Your task to perform on an android device: Open calendar and show me the second week of next month Image 0: 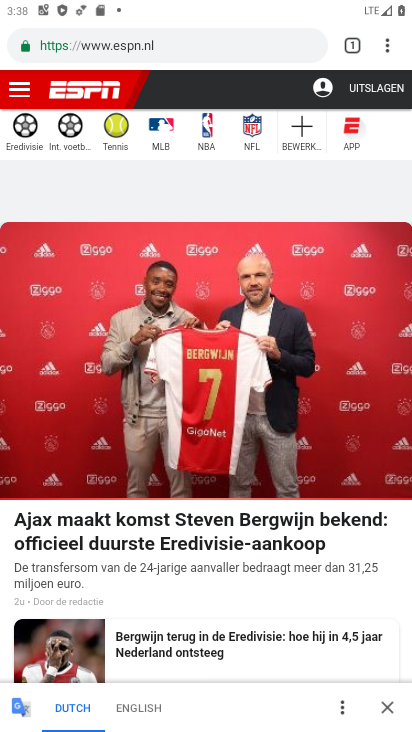
Step 0: press home button
Your task to perform on an android device: Open calendar and show me the second week of next month Image 1: 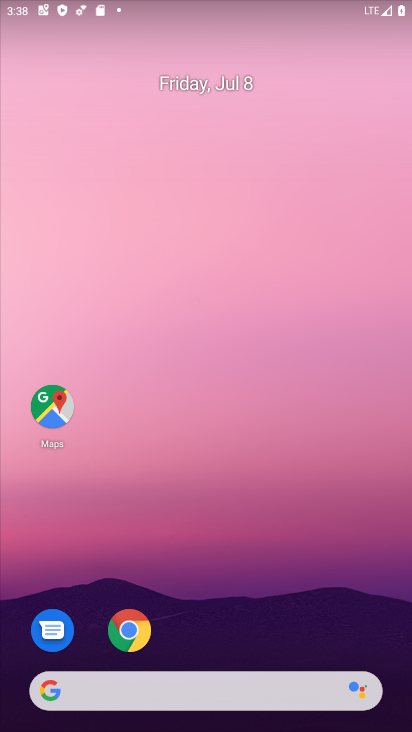
Step 1: drag from (214, 647) to (108, 71)
Your task to perform on an android device: Open calendar and show me the second week of next month Image 2: 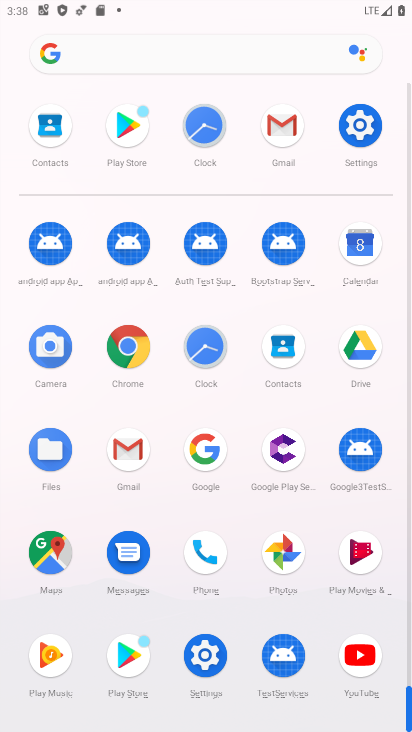
Step 2: click (362, 244)
Your task to perform on an android device: Open calendar and show me the second week of next month Image 3: 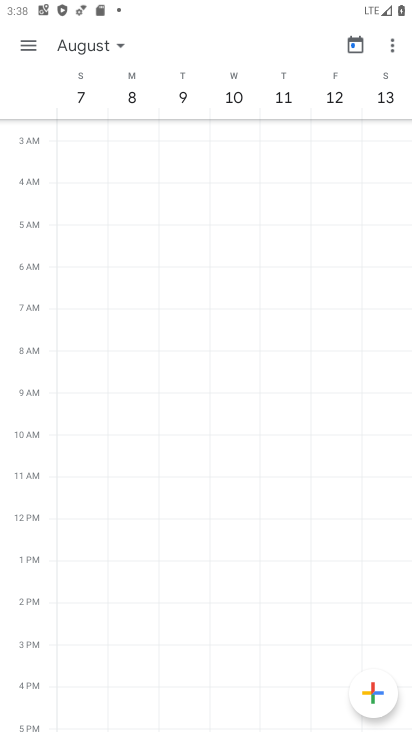
Step 3: click (355, 43)
Your task to perform on an android device: Open calendar and show me the second week of next month Image 4: 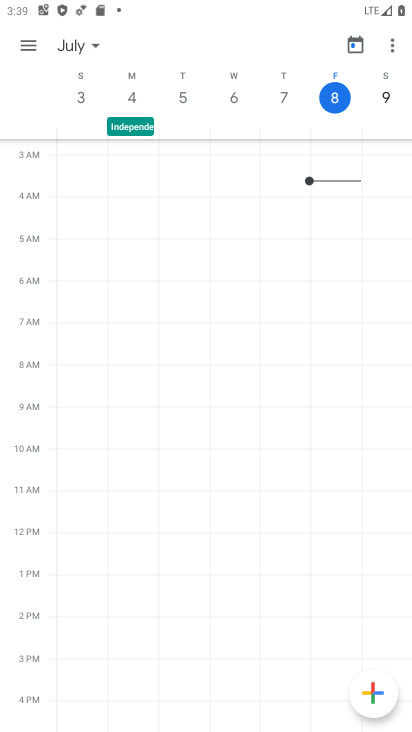
Step 4: click (92, 43)
Your task to perform on an android device: Open calendar and show me the second week of next month Image 5: 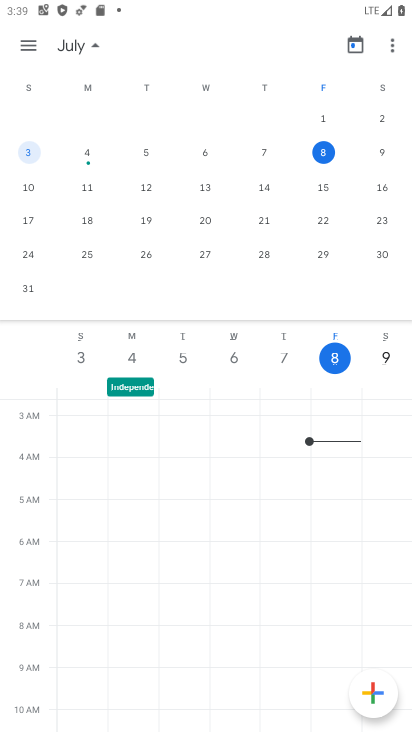
Step 5: drag from (353, 200) to (0, 210)
Your task to perform on an android device: Open calendar and show me the second week of next month Image 6: 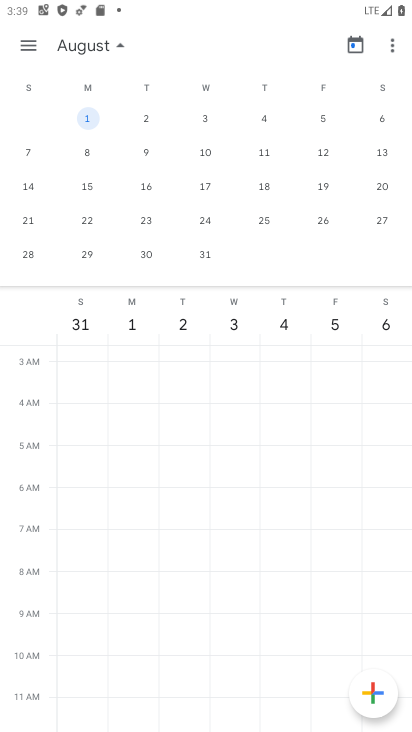
Step 6: click (82, 154)
Your task to perform on an android device: Open calendar and show me the second week of next month Image 7: 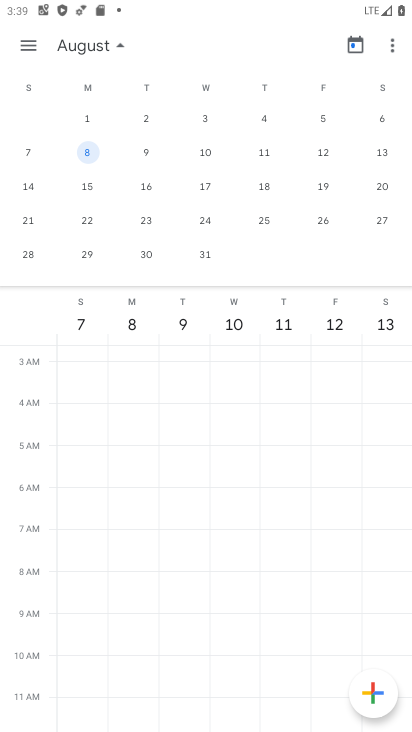
Step 7: click (19, 42)
Your task to perform on an android device: Open calendar and show me the second week of next month Image 8: 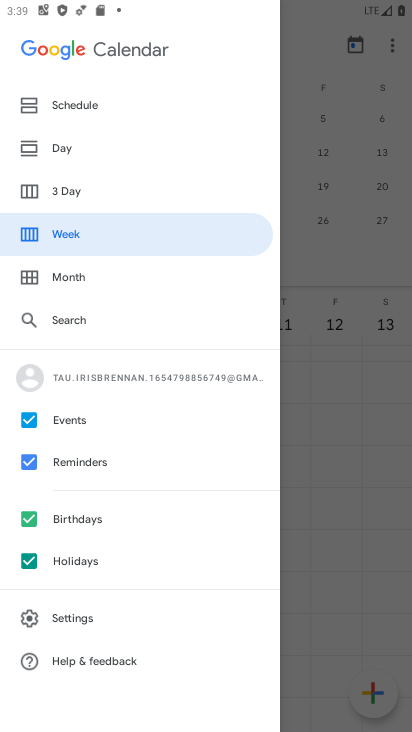
Step 8: click (53, 225)
Your task to perform on an android device: Open calendar and show me the second week of next month Image 9: 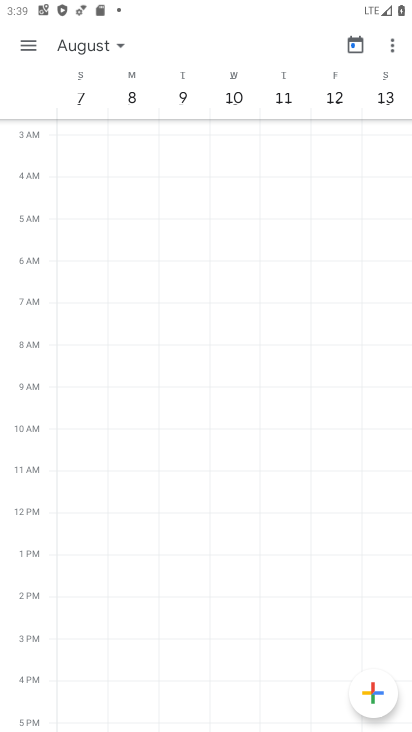
Step 9: task complete